Your task to perform on an android device: refresh tabs in the chrome app Image 0: 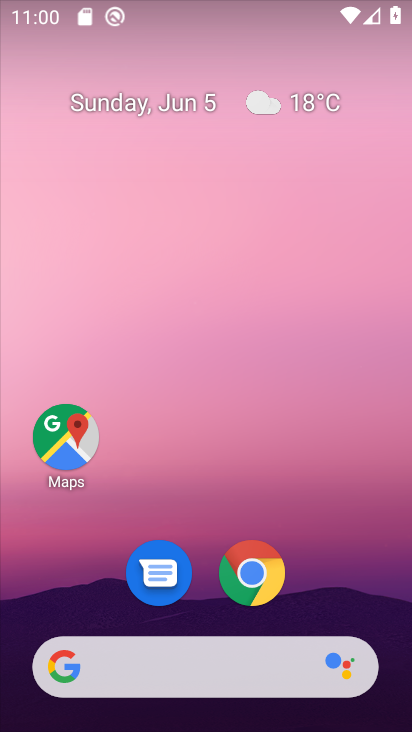
Step 0: click (280, 98)
Your task to perform on an android device: refresh tabs in the chrome app Image 1: 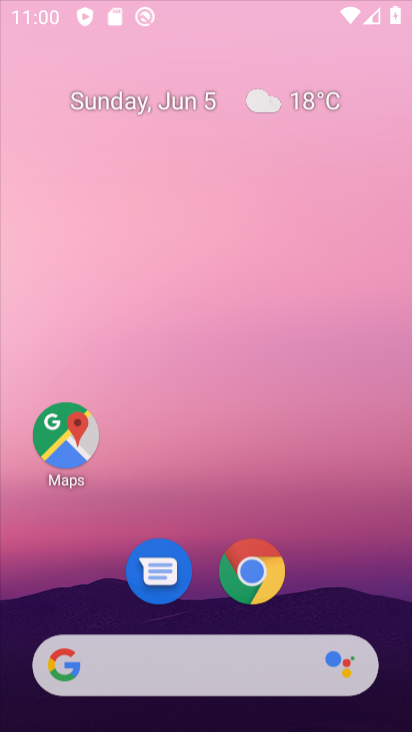
Step 1: drag from (215, 470) to (254, 4)
Your task to perform on an android device: refresh tabs in the chrome app Image 2: 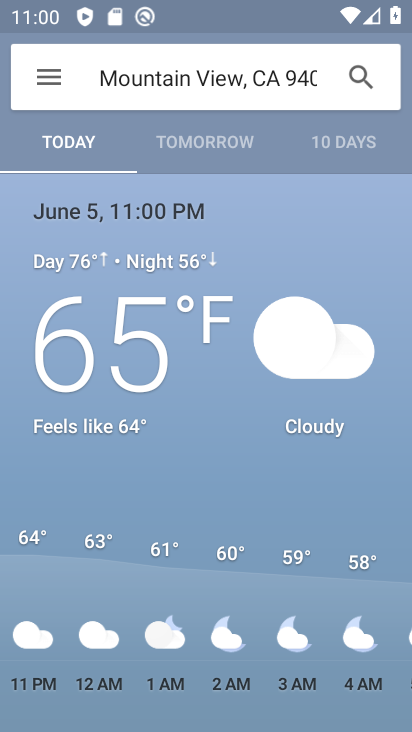
Step 2: press home button
Your task to perform on an android device: refresh tabs in the chrome app Image 3: 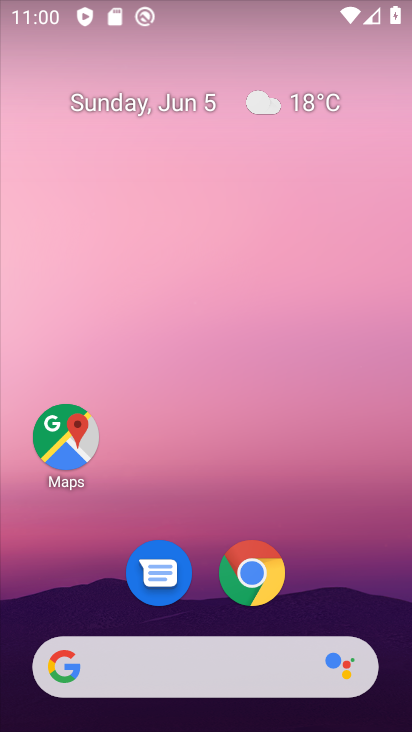
Step 3: drag from (252, 479) to (288, 77)
Your task to perform on an android device: refresh tabs in the chrome app Image 4: 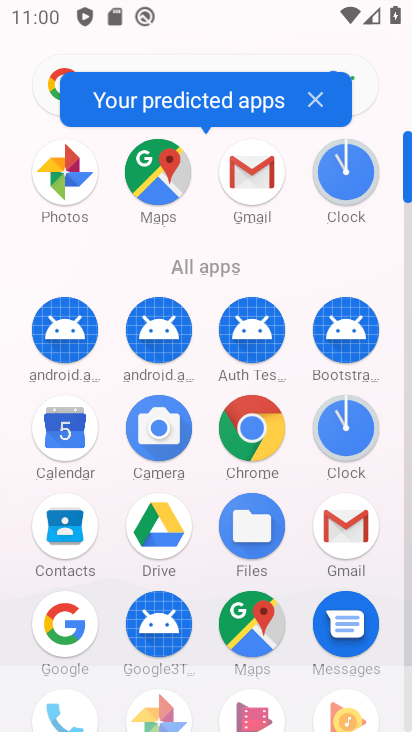
Step 4: click (253, 443)
Your task to perform on an android device: refresh tabs in the chrome app Image 5: 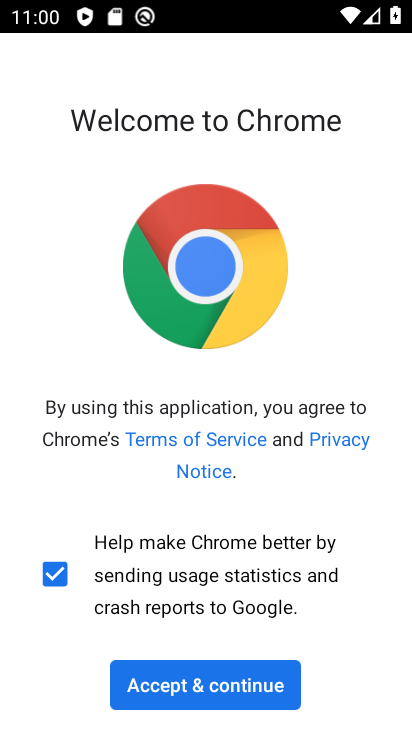
Step 5: click (207, 690)
Your task to perform on an android device: refresh tabs in the chrome app Image 6: 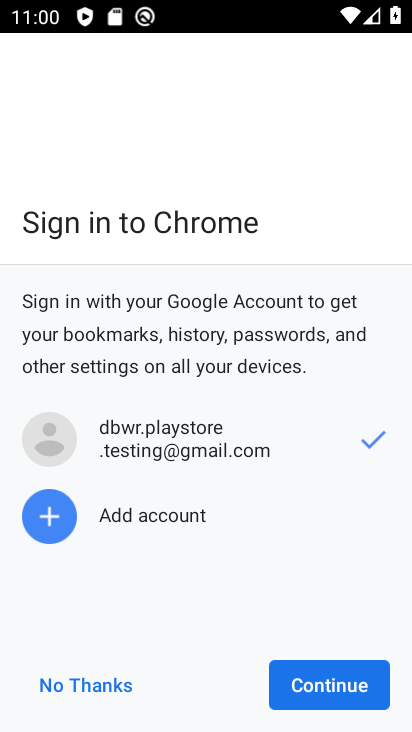
Step 6: click (276, 691)
Your task to perform on an android device: refresh tabs in the chrome app Image 7: 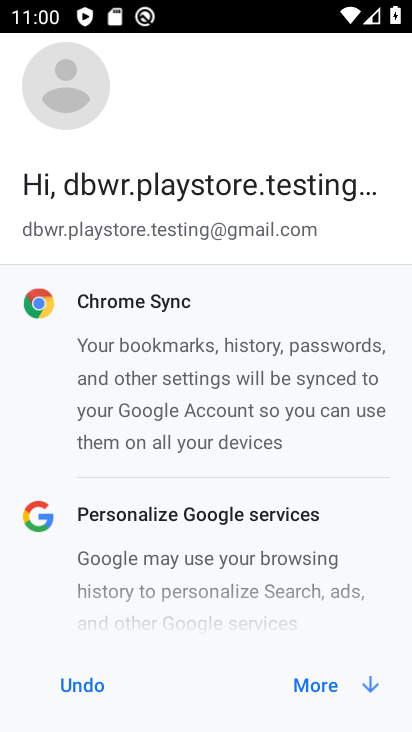
Step 7: click (335, 690)
Your task to perform on an android device: refresh tabs in the chrome app Image 8: 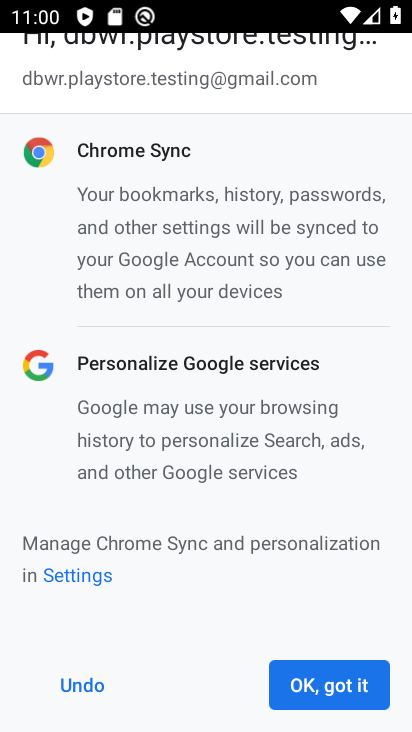
Step 8: click (335, 687)
Your task to perform on an android device: refresh tabs in the chrome app Image 9: 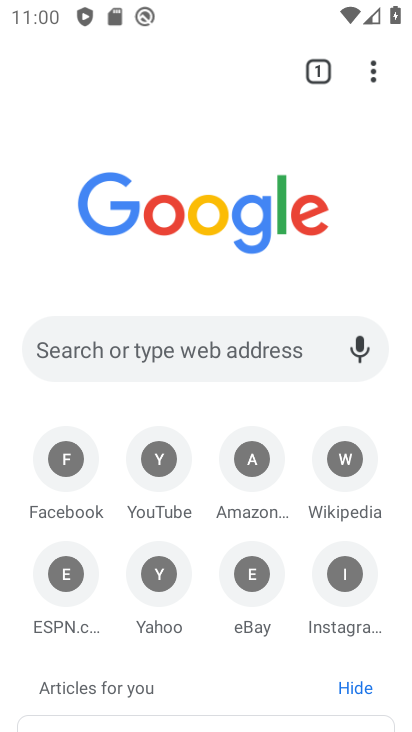
Step 9: click (372, 74)
Your task to perform on an android device: refresh tabs in the chrome app Image 10: 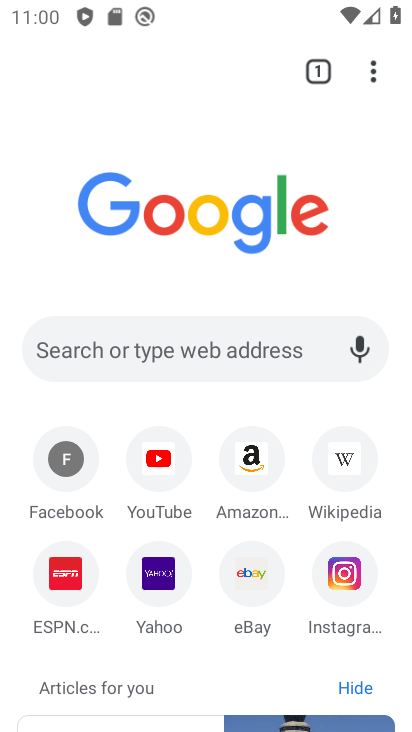
Step 10: click (380, 76)
Your task to perform on an android device: refresh tabs in the chrome app Image 11: 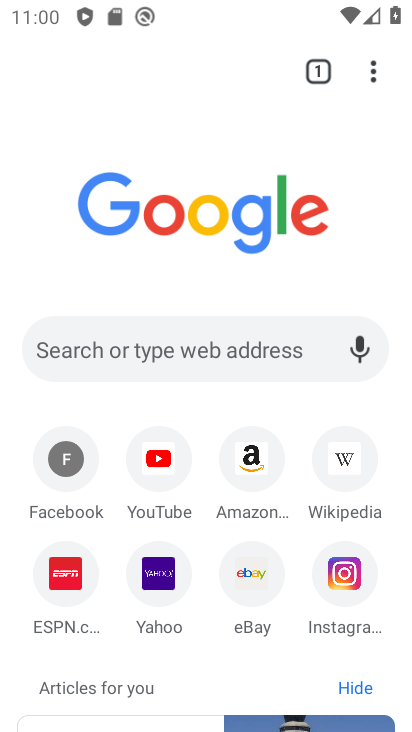
Step 11: click (374, 80)
Your task to perform on an android device: refresh tabs in the chrome app Image 12: 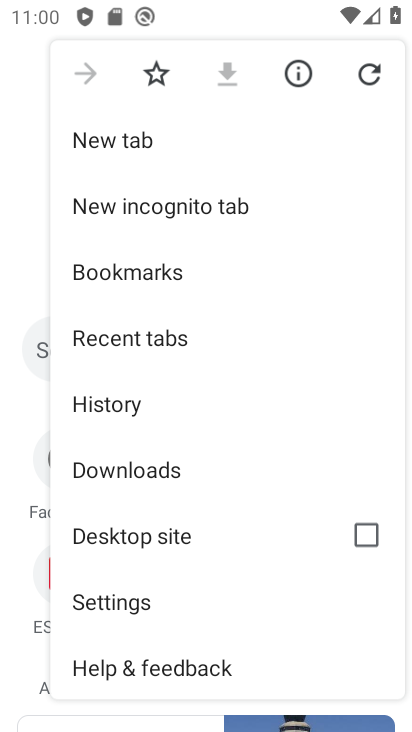
Step 12: click (360, 78)
Your task to perform on an android device: refresh tabs in the chrome app Image 13: 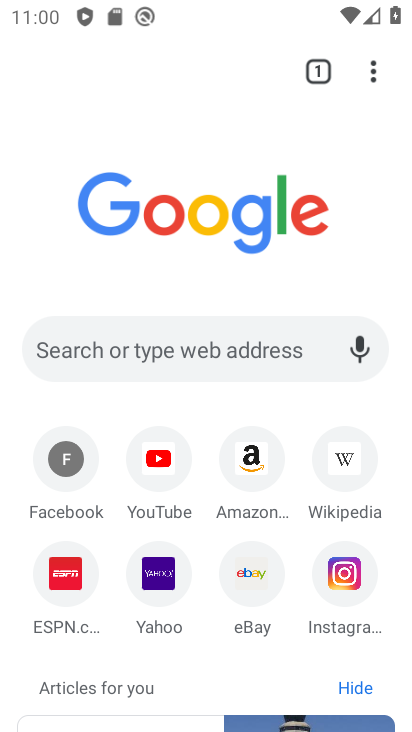
Step 13: task complete